Your task to perform on an android device: visit the assistant section in the google photos Image 0: 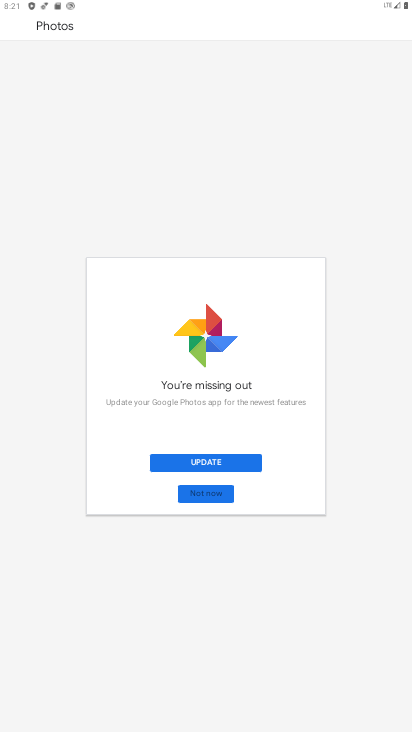
Step 0: press home button
Your task to perform on an android device: visit the assistant section in the google photos Image 1: 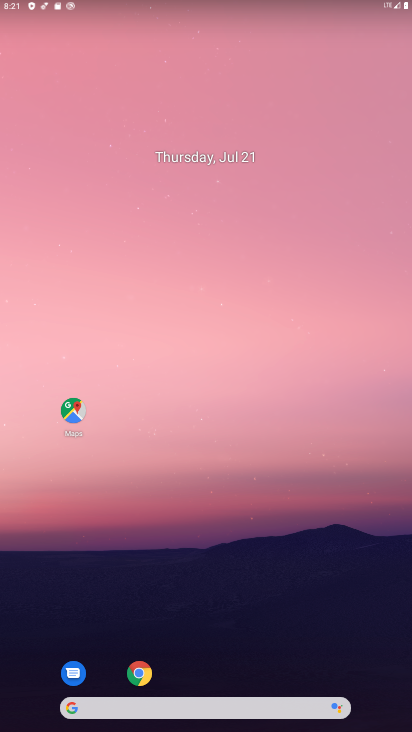
Step 1: drag from (175, 649) to (217, 124)
Your task to perform on an android device: visit the assistant section in the google photos Image 2: 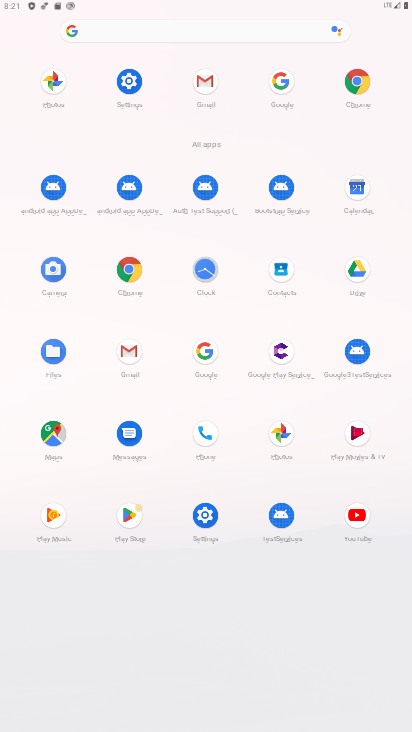
Step 2: click (275, 423)
Your task to perform on an android device: visit the assistant section in the google photos Image 3: 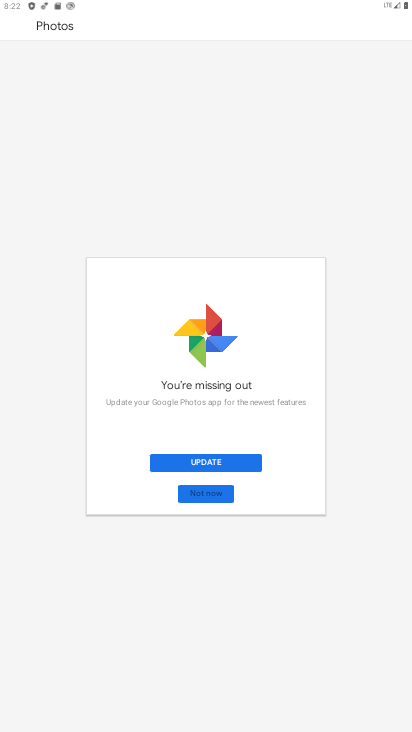
Step 3: click (184, 493)
Your task to perform on an android device: visit the assistant section in the google photos Image 4: 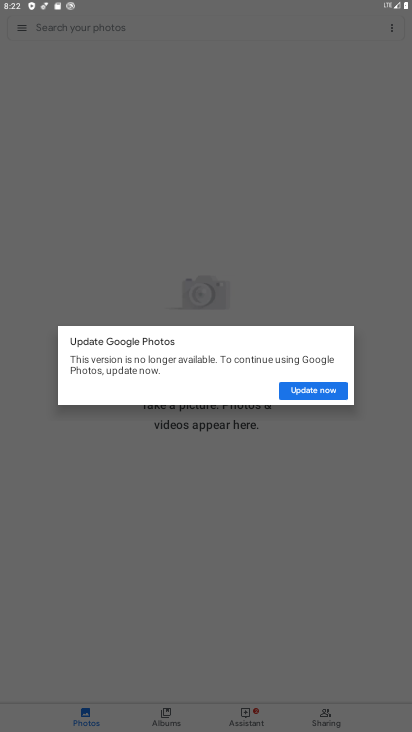
Step 4: click (320, 392)
Your task to perform on an android device: visit the assistant section in the google photos Image 5: 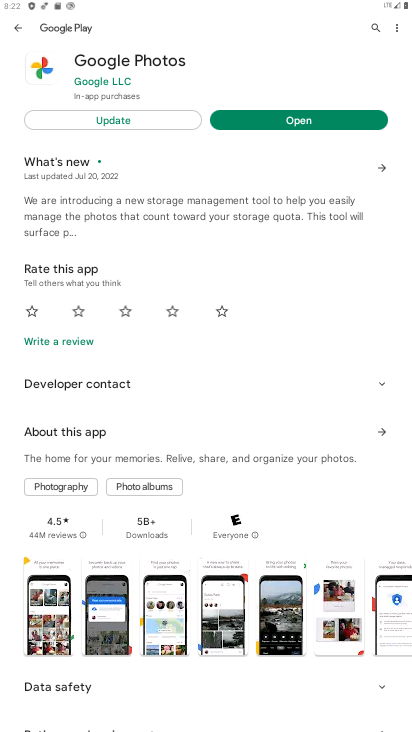
Step 5: click (228, 116)
Your task to perform on an android device: visit the assistant section in the google photos Image 6: 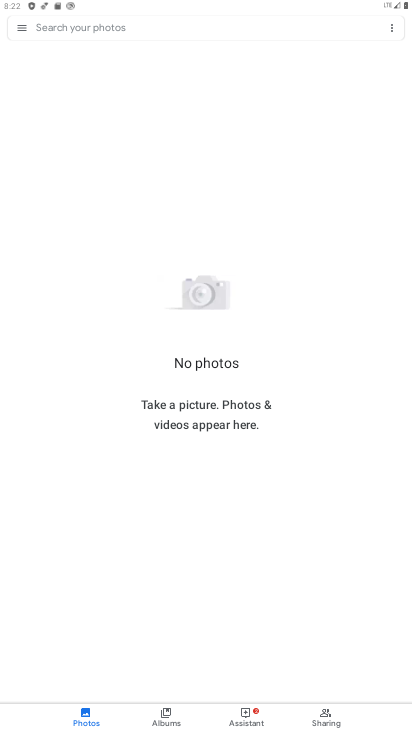
Step 6: click (246, 718)
Your task to perform on an android device: visit the assistant section in the google photos Image 7: 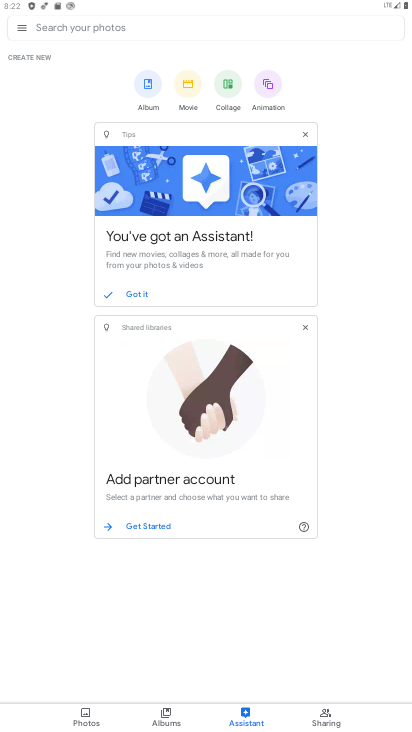
Step 7: task complete